Your task to perform on an android device: Open my contact list Image 0: 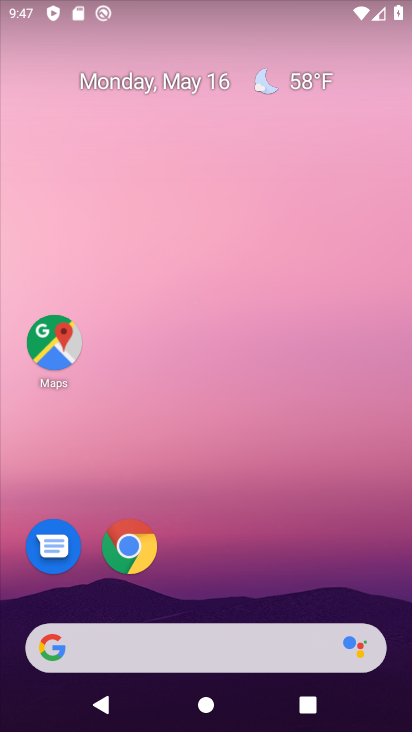
Step 0: drag from (266, 559) to (246, 221)
Your task to perform on an android device: Open my contact list Image 1: 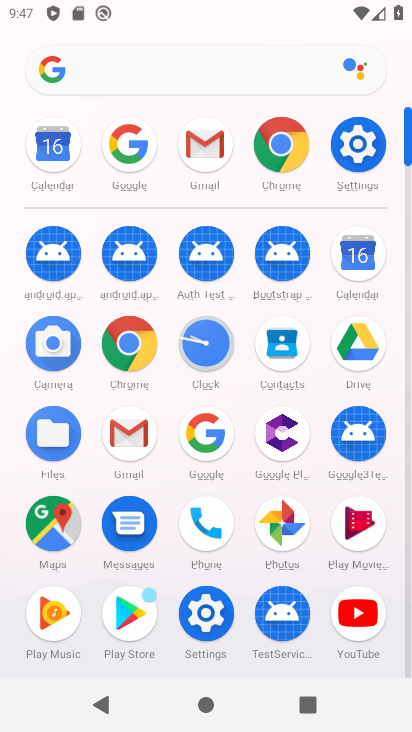
Step 1: click (285, 344)
Your task to perform on an android device: Open my contact list Image 2: 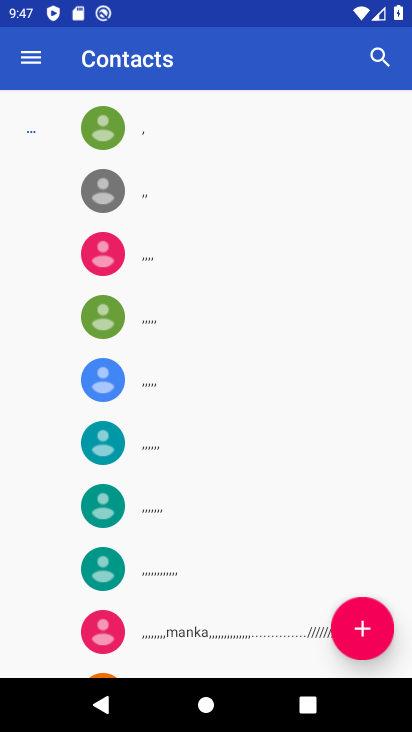
Step 2: task complete